Your task to perform on an android device: toggle notifications settings in the gmail app Image 0: 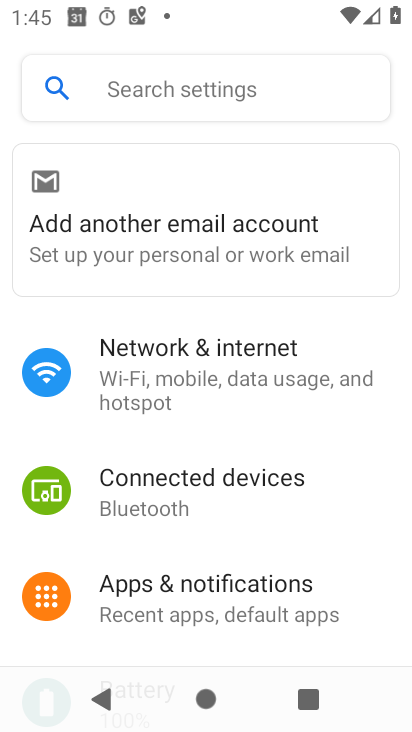
Step 0: press home button
Your task to perform on an android device: toggle notifications settings in the gmail app Image 1: 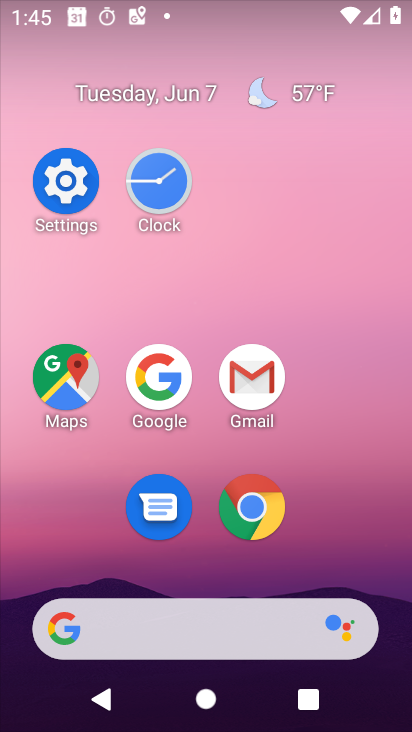
Step 1: click (248, 379)
Your task to perform on an android device: toggle notifications settings in the gmail app Image 2: 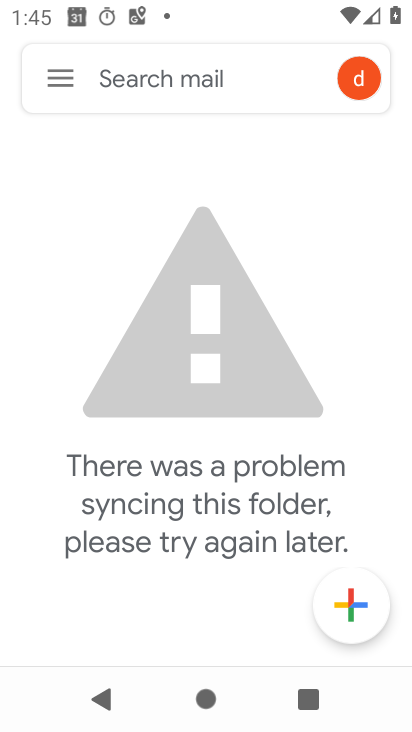
Step 2: click (42, 70)
Your task to perform on an android device: toggle notifications settings in the gmail app Image 3: 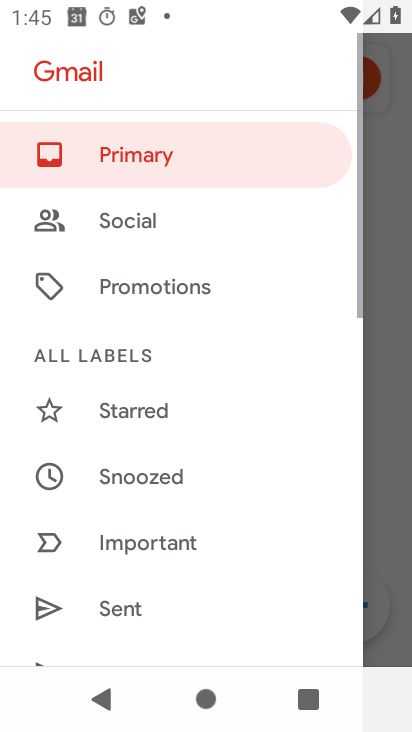
Step 3: drag from (160, 462) to (191, 33)
Your task to perform on an android device: toggle notifications settings in the gmail app Image 4: 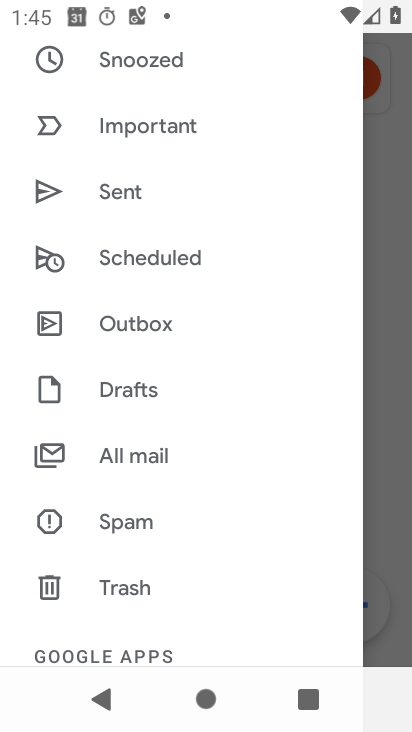
Step 4: drag from (151, 503) to (198, 174)
Your task to perform on an android device: toggle notifications settings in the gmail app Image 5: 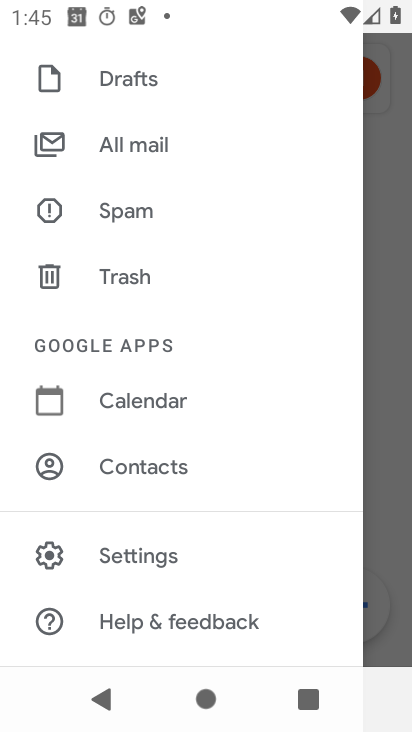
Step 5: click (155, 539)
Your task to perform on an android device: toggle notifications settings in the gmail app Image 6: 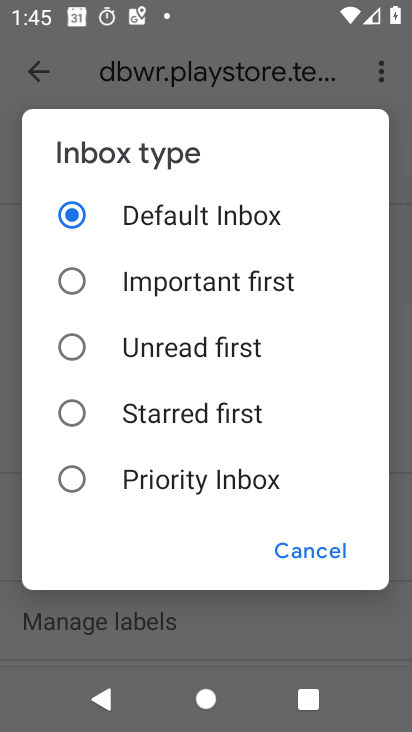
Step 6: click (327, 565)
Your task to perform on an android device: toggle notifications settings in the gmail app Image 7: 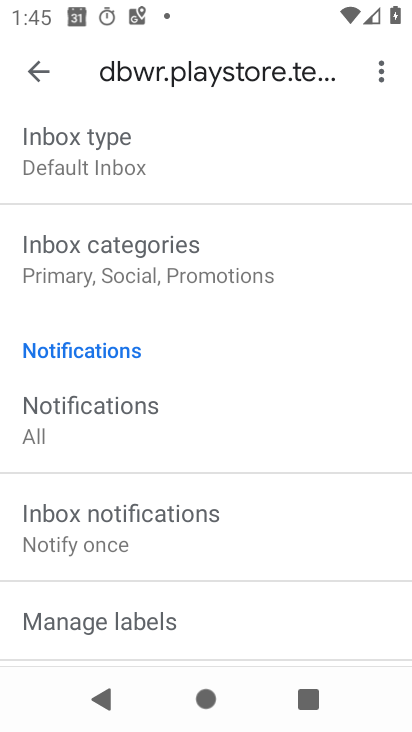
Step 7: click (89, 435)
Your task to perform on an android device: toggle notifications settings in the gmail app Image 8: 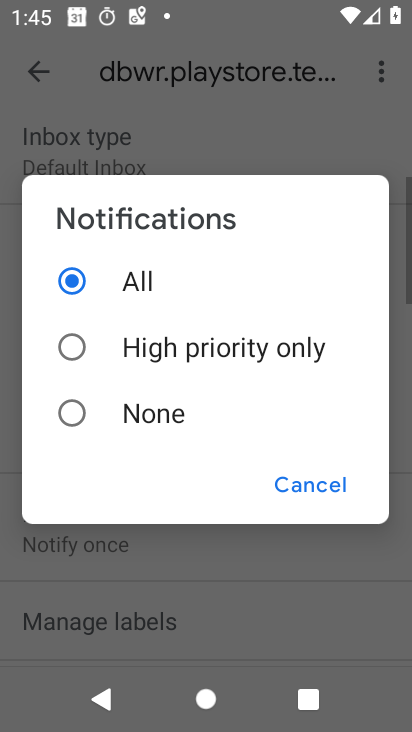
Step 8: click (174, 351)
Your task to perform on an android device: toggle notifications settings in the gmail app Image 9: 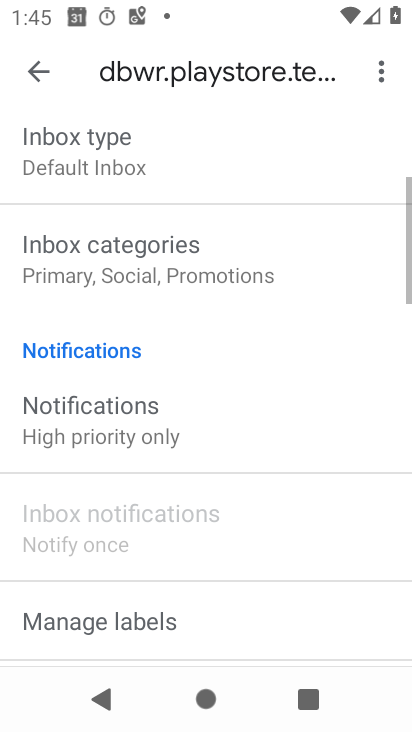
Step 9: task complete